Your task to perform on an android device: clear all cookies in the chrome app Image 0: 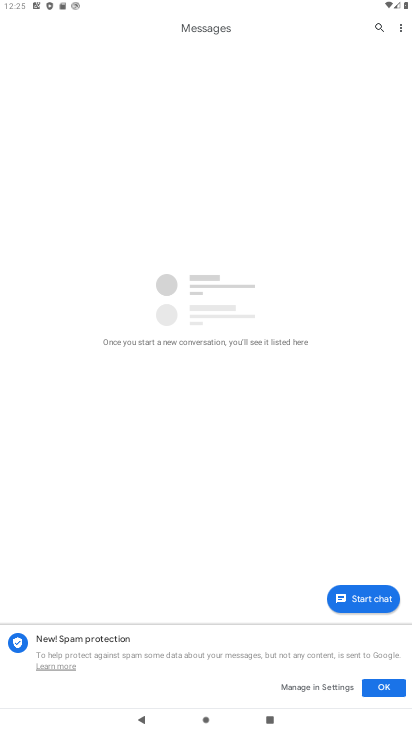
Step 0: press home button
Your task to perform on an android device: clear all cookies in the chrome app Image 1: 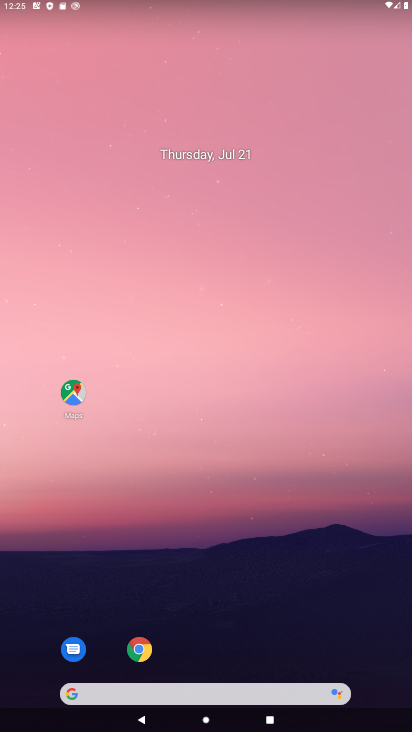
Step 1: click (138, 648)
Your task to perform on an android device: clear all cookies in the chrome app Image 2: 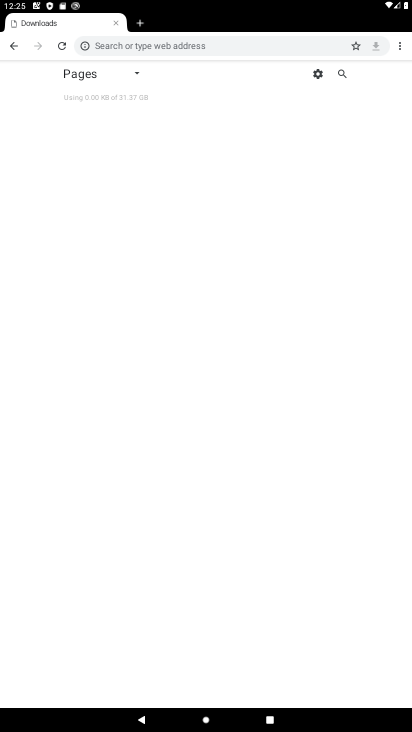
Step 2: click (398, 53)
Your task to perform on an android device: clear all cookies in the chrome app Image 3: 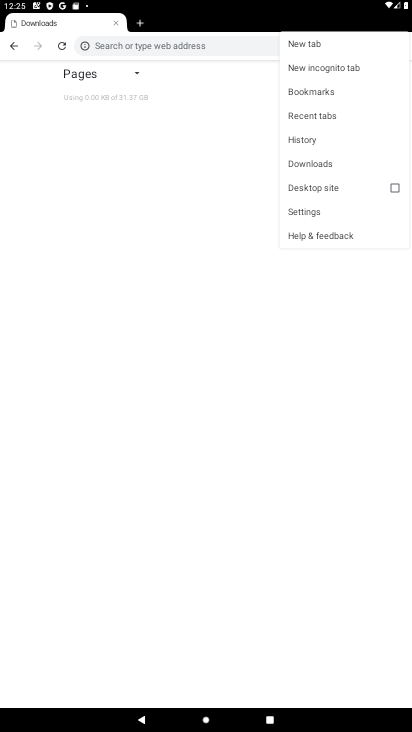
Step 3: click (307, 139)
Your task to perform on an android device: clear all cookies in the chrome app Image 4: 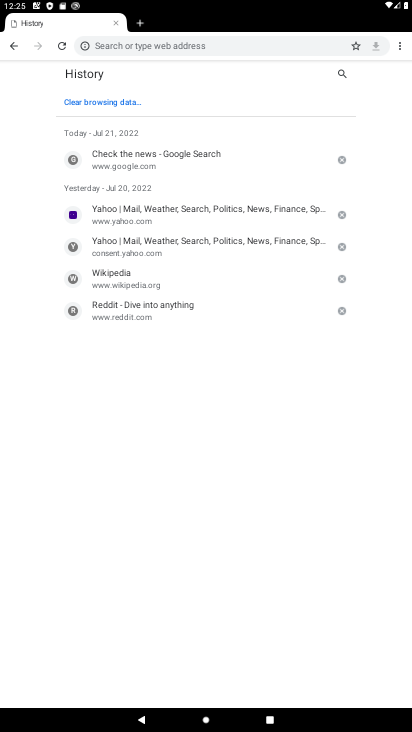
Step 4: click (106, 108)
Your task to perform on an android device: clear all cookies in the chrome app Image 5: 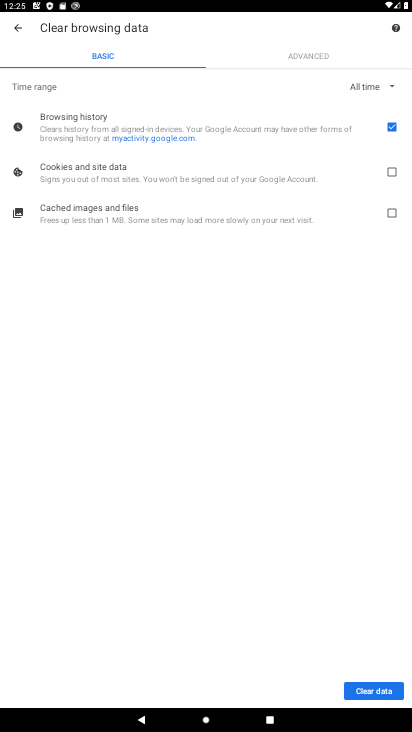
Step 5: click (393, 170)
Your task to perform on an android device: clear all cookies in the chrome app Image 6: 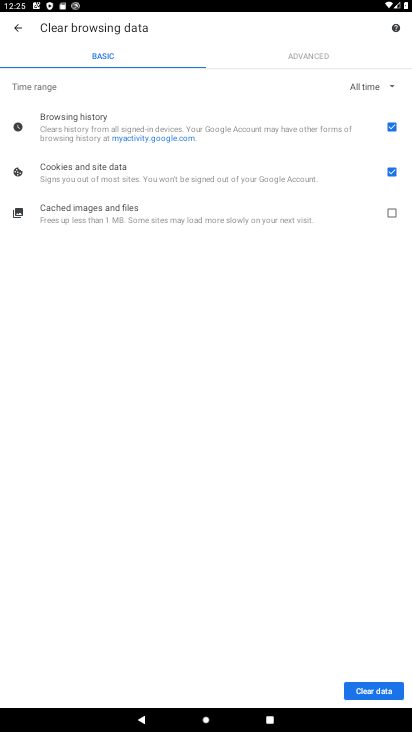
Step 6: click (389, 124)
Your task to perform on an android device: clear all cookies in the chrome app Image 7: 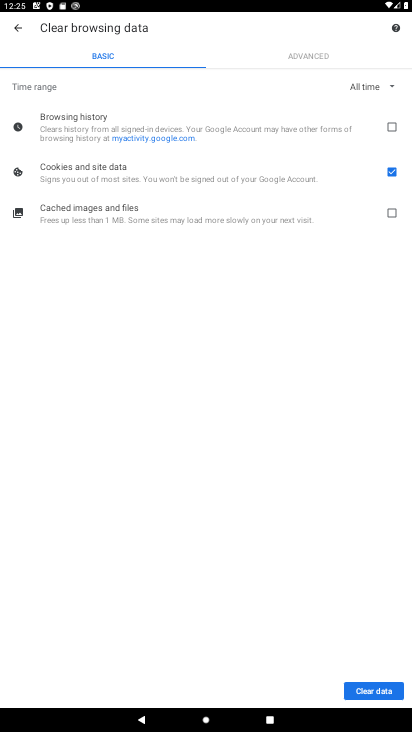
Step 7: click (370, 688)
Your task to perform on an android device: clear all cookies in the chrome app Image 8: 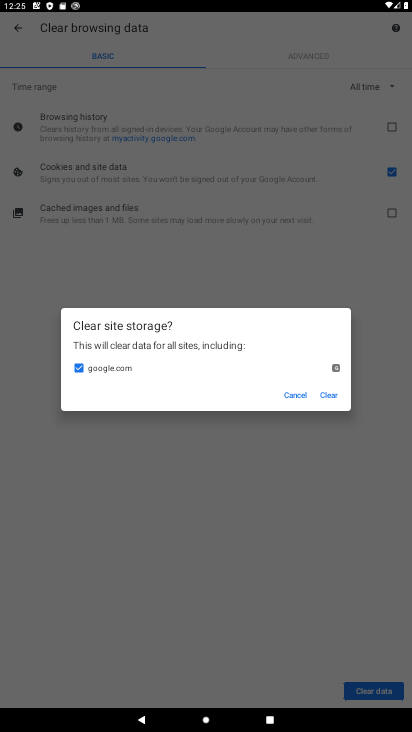
Step 8: click (325, 395)
Your task to perform on an android device: clear all cookies in the chrome app Image 9: 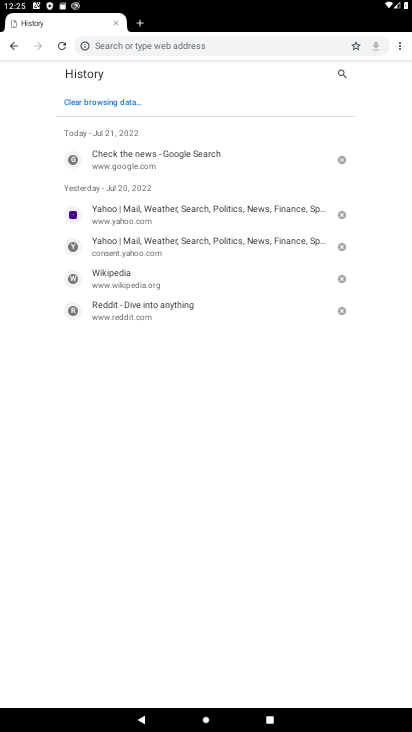
Step 9: task complete